Your task to perform on an android device: turn off javascript in the chrome app Image 0: 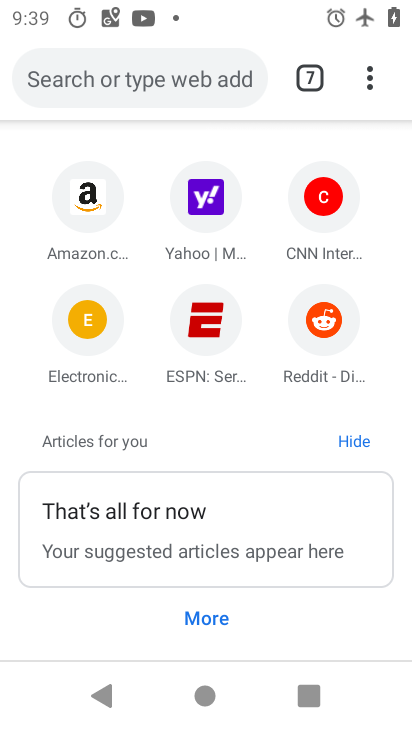
Step 0: drag from (381, 78) to (166, 559)
Your task to perform on an android device: turn off javascript in the chrome app Image 1: 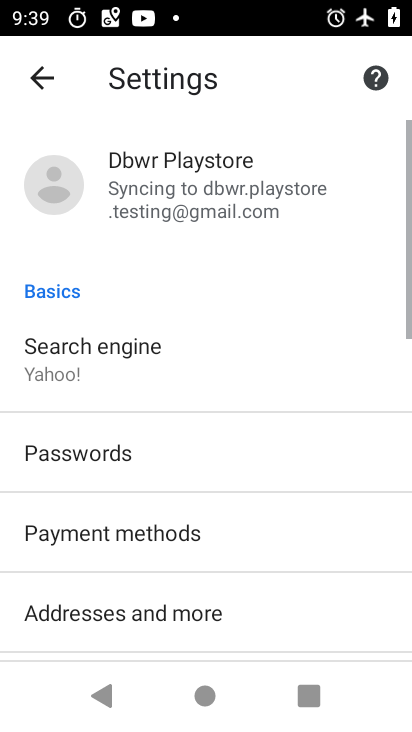
Step 1: drag from (201, 583) to (238, 364)
Your task to perform on an android device: turn off javascript in the chrome app Image 2: 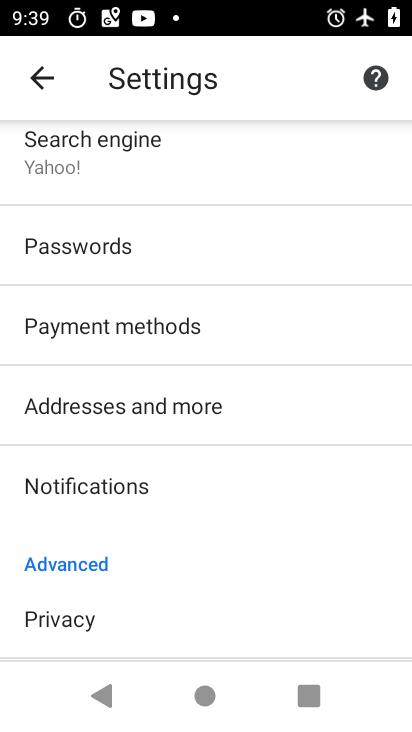
Step 2: drag from (202, 594) to (208, 328)
Your task to perform on an android device: turn off javascript in the chrome app Image 3: 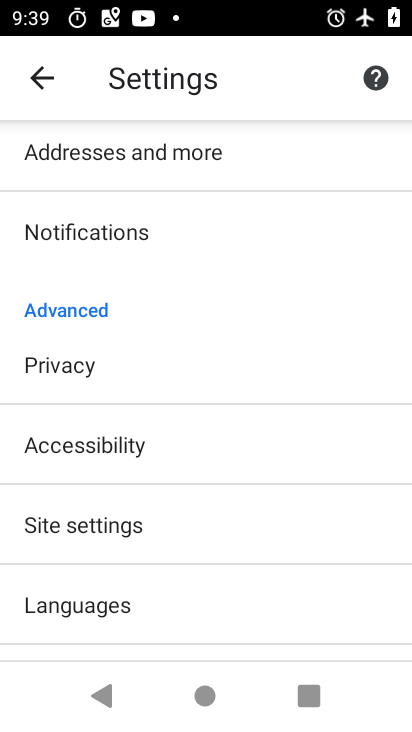
Step 3: drag from (166, 546) to (204, 381)
Your task to perform on an android device: turn off javascript in the chrome app Image 4: 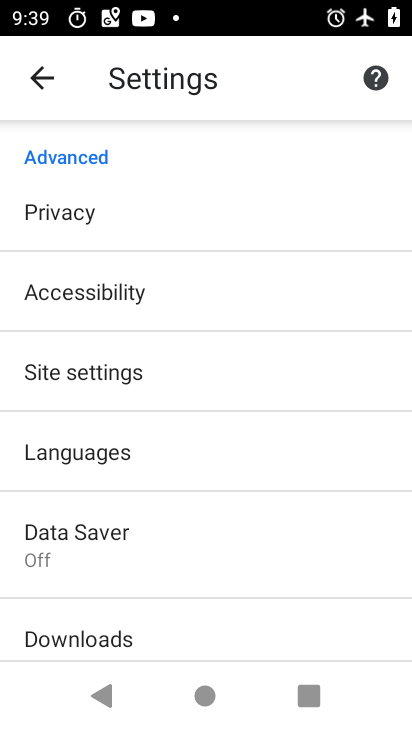
Step 4: click (100, 382)
Your task to perform on an android device: turn off javascript in the chrome app Image 5: 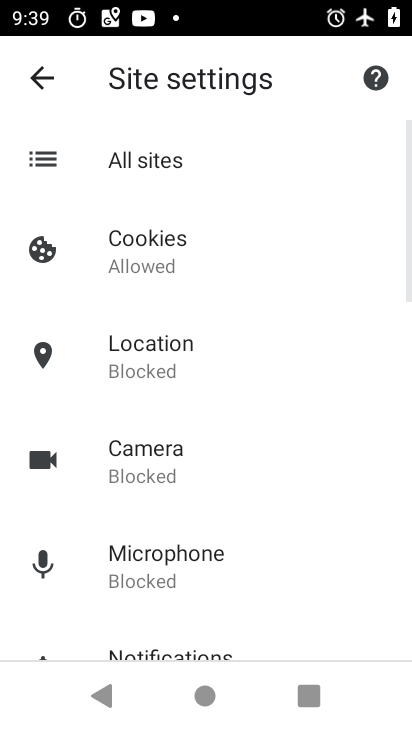
Step 5: drag from (229, 542) to (277, 305)
Your task to perform on an android device: turn off javascript in the chrome app Image 6: 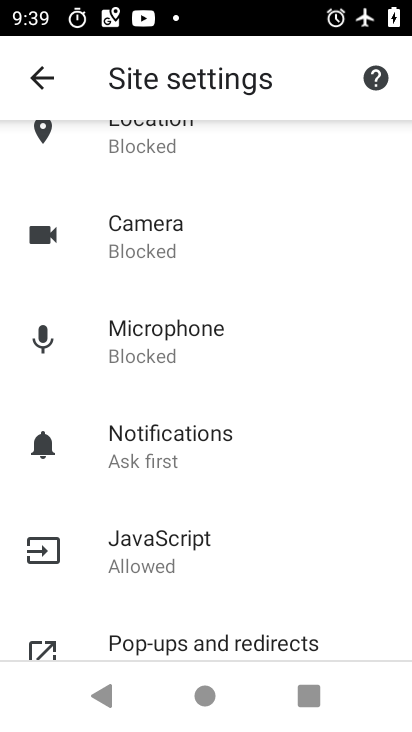
Step 6: click (165, 551)
Your task to perform on an android device: turn off javascript in the chrome app Image 7: 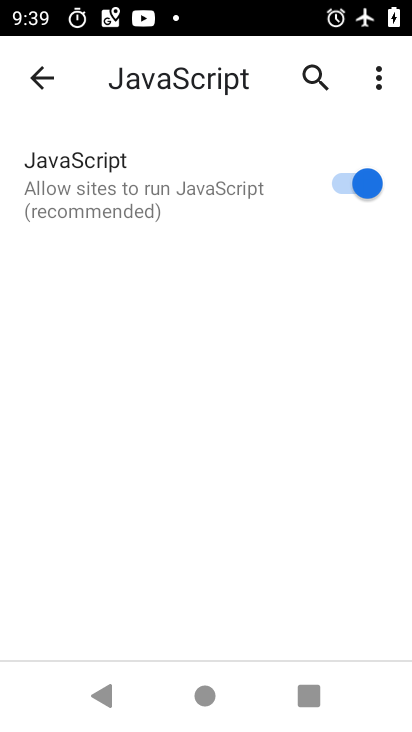
Step 7: click (336, 182)
Your task to perform on an android device: turn off javascript in the chrome app Image 8: 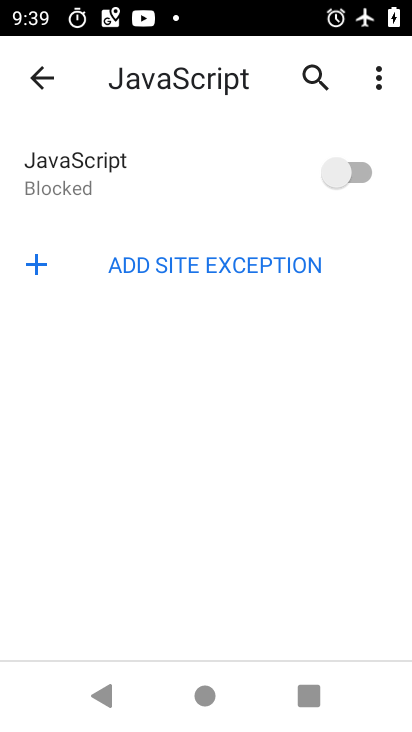
Step 8: task complete